Your task to perform on an android device: change text size in settings app Image 0: 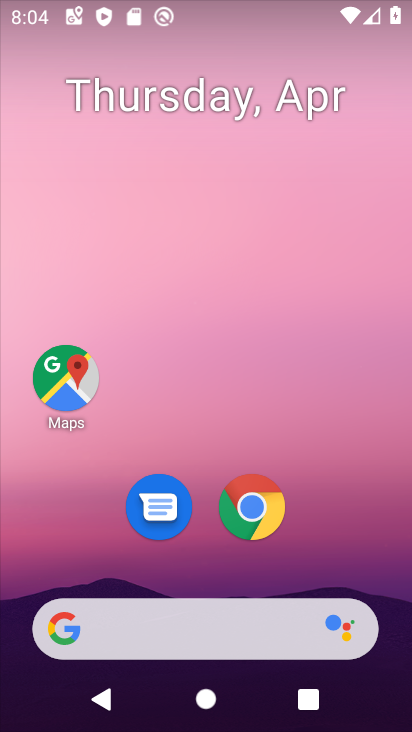
Step 0: drag from (370, 547) to (333, 107)
Your task to perform on an android device: change text size in settings app Image 1: 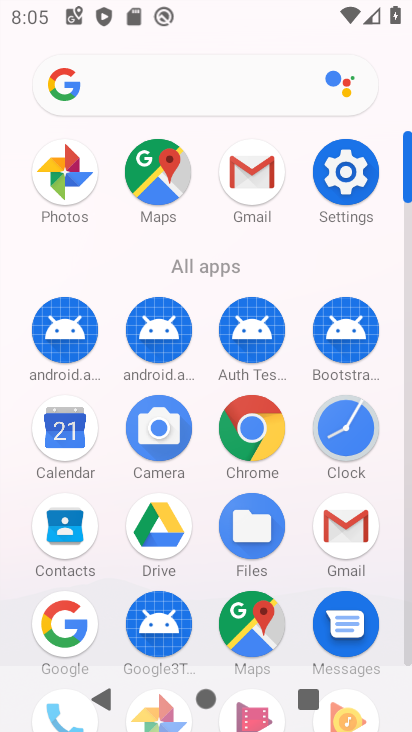
Step 1: click (357, 184)
Your task to perform on an android device: change text size in settings app Image 2: 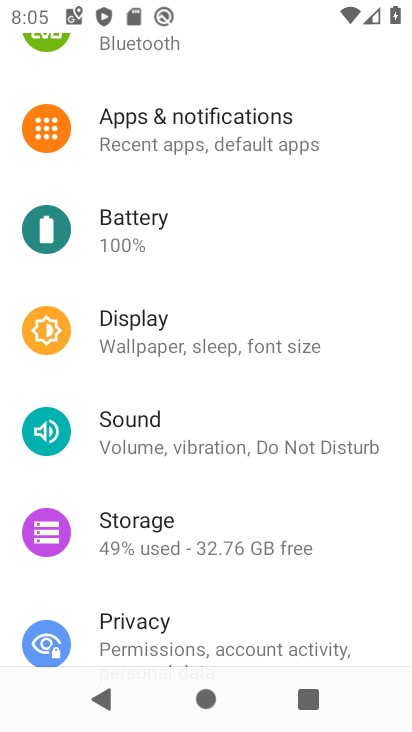
Step 2: drag from (322, 600) to (304, 227)
Your task to perform on an android device: change text size in settings app Image 3: 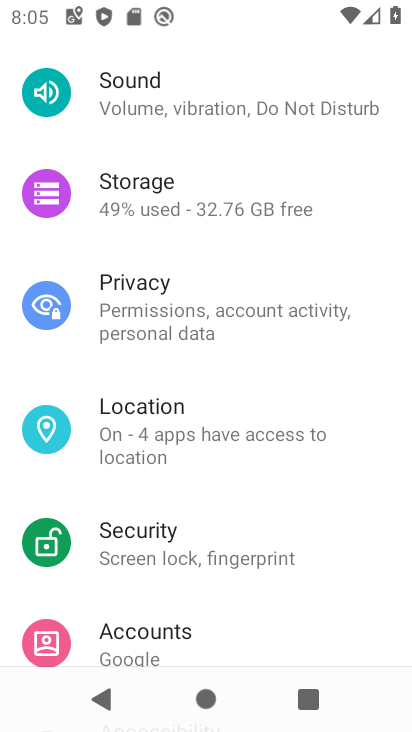
Step 3: drag from (338, 581) to (302, 189)
Your task to perform on an android device: change text size in settings app Image 4: 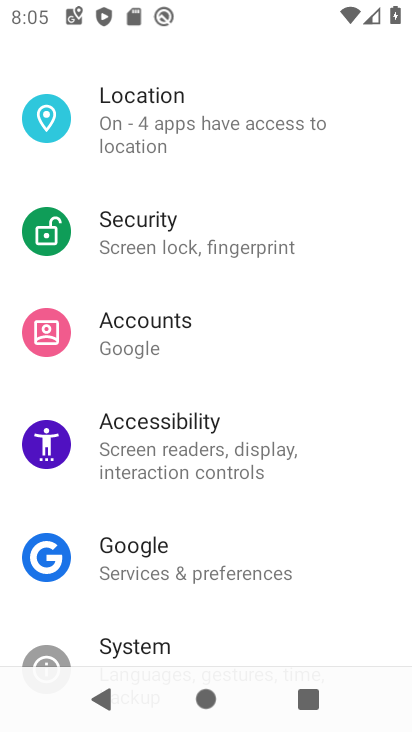
Step 4: drag from (294, 167) to (218, 540)
Your task to perform on an android device: change text size in settings app Image 5: 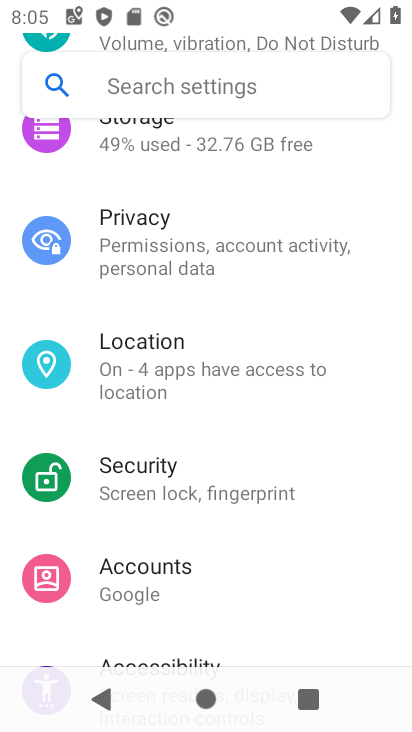
Step 5: drag from (284, 226) to (270, 572)
Your task to perform on an android device: change text size in settings app Image 6: 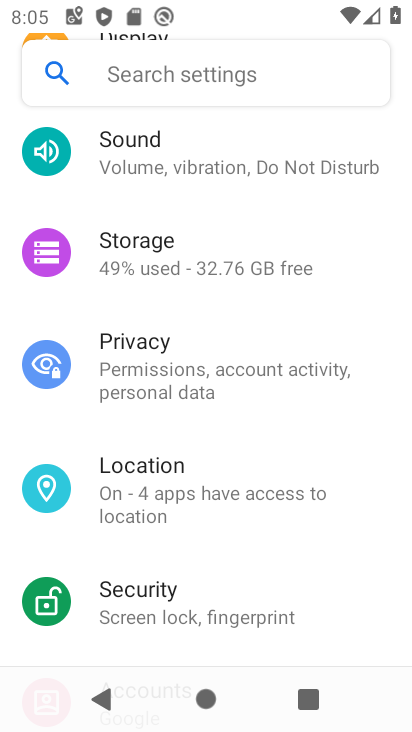
Step 6: drag from (288, 146) to (314, 440)
Your task to perform on an android device: change text size in settings app Image 7: 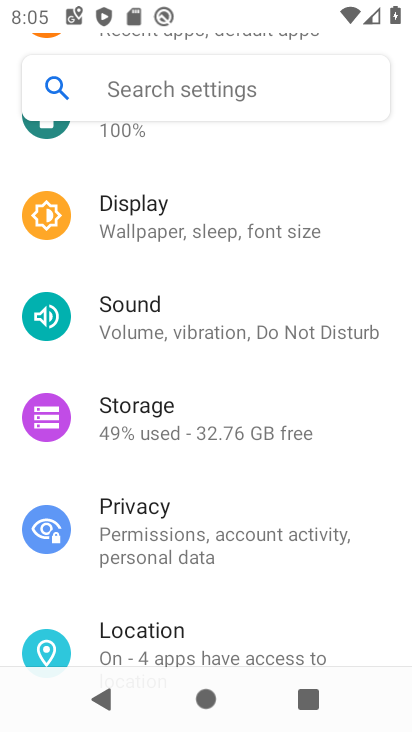
Step 7: click (291, 205)
Your task to perform on an android device: change text size in settings app Image 8: 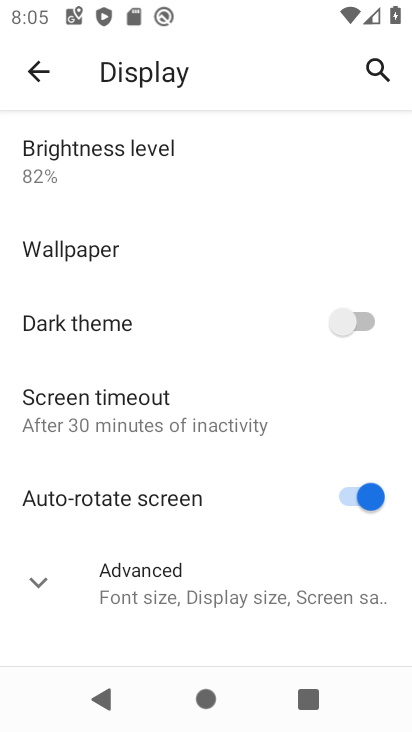
Step 8: click (205, 590)
Your task to perform on an android device: change text size in settings app Image 9: 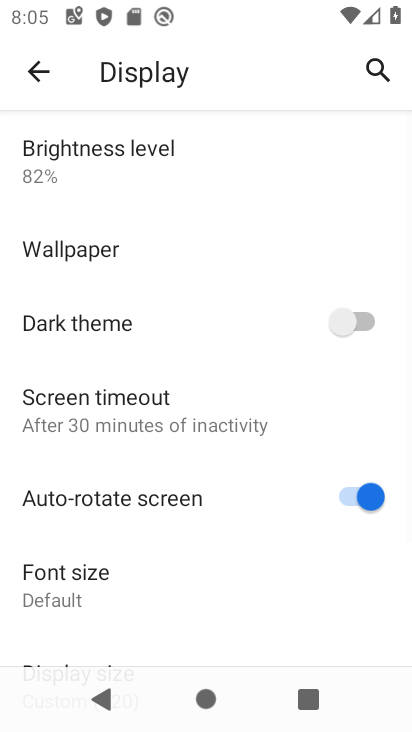
Step 9: click (75, 576)
Your task to perform on an android device: change text size in settings app Image 10: 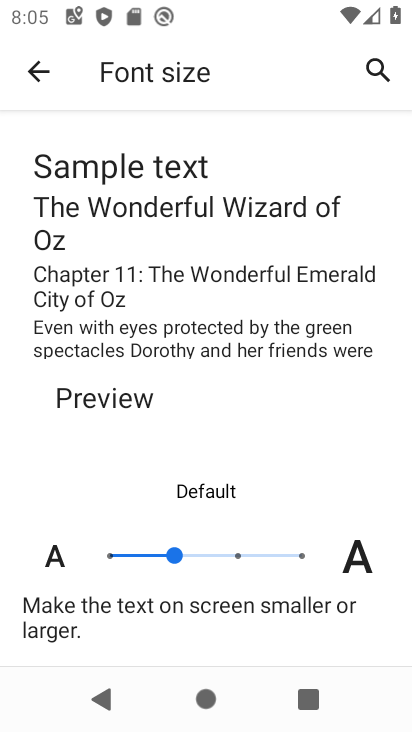
Step 10: click (116, 556)
Your task to perform on an android device: change text size in settings app Image 11: 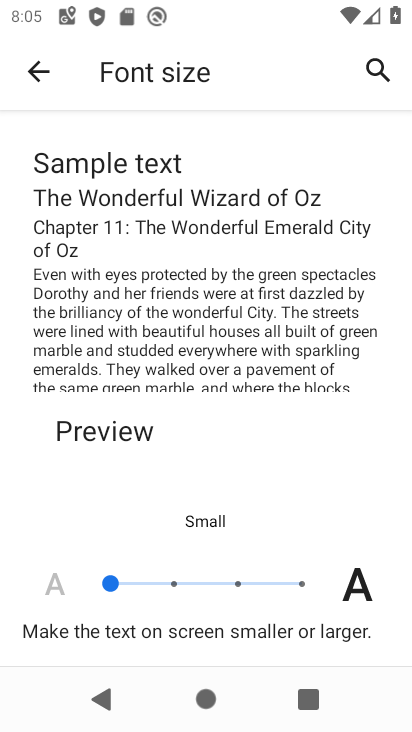
Step 11: task complete